Your task to perform on an android device: stop showing notifications on the lock screen Image 0: 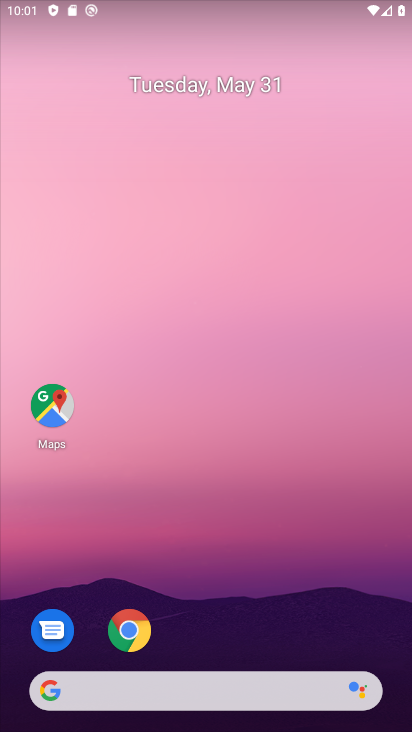
Step 0: drag from (303, 555) to (288, 18)
Your task to perform on an android device: stop showing notifications on the lock screen Image 1: 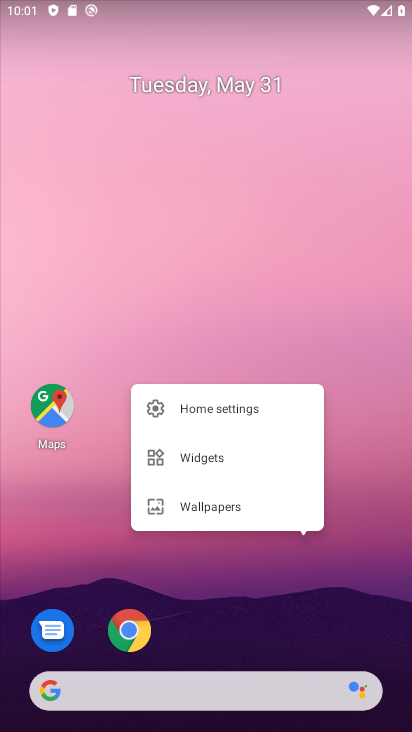
Step 1: press home button
Your task to perform on an android device: stop showing notifications on the lock screen Image 2: 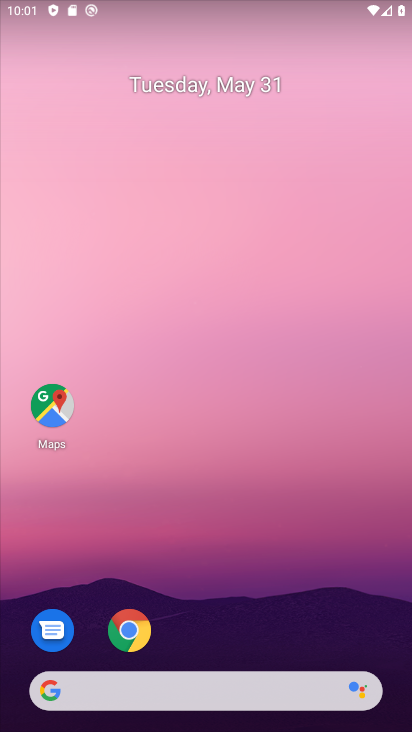
Step 2: drag from (340, 583) to (333, 79)
Your task to perform on an android device: stop showing notifications on the lock screen Image 3: 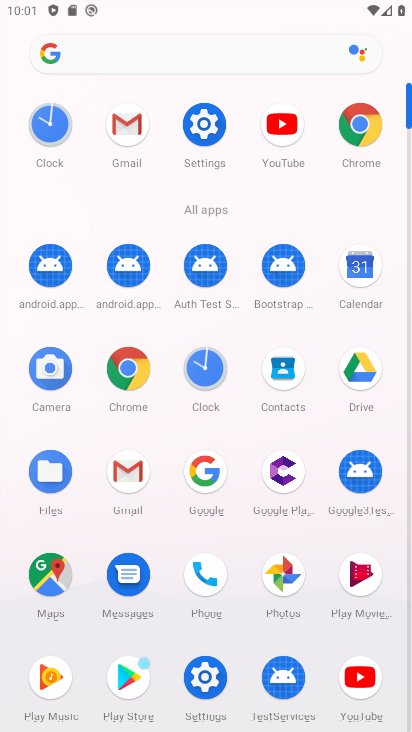
Step 3: click (202, 133)
Your task to perform on an android device: stop showing notifications on the lock screen Image 4: 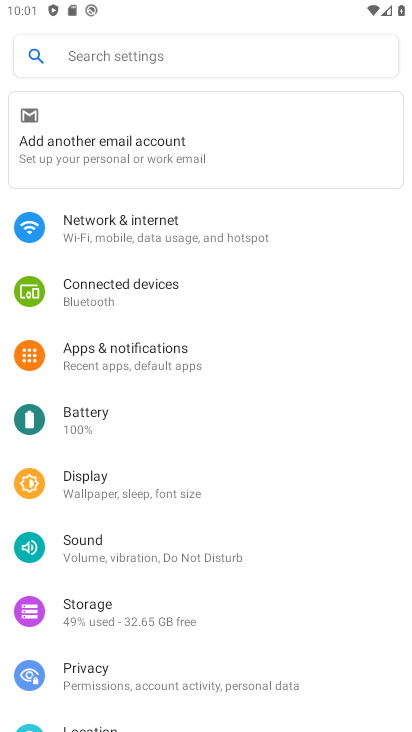
Step 4: click (158, 358)
Your task to perform on an android device: stop showing notifications on the lock screen Image 5: 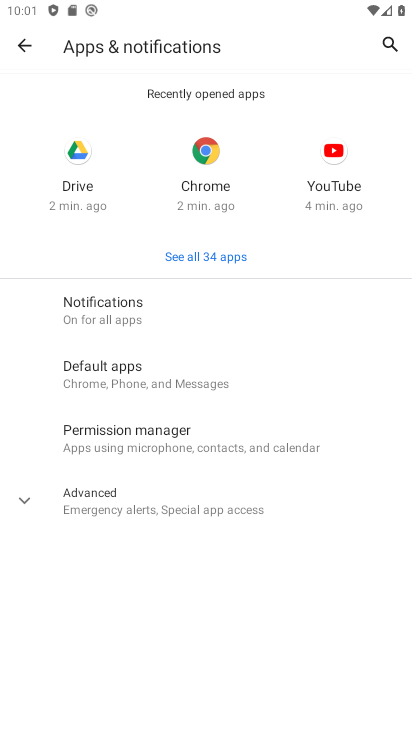
Step 5: click (146, 308)
Your task to perform on an android device: stop showing notifications on the lock screen Image 6: 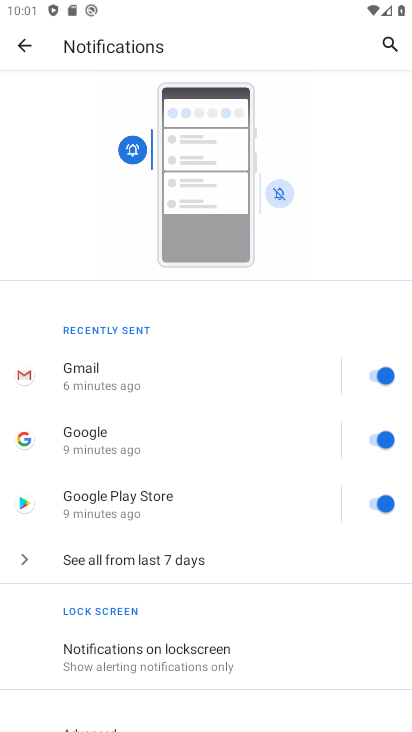
Step 6: click (161, 639)
Your task to perform on an android device: stop showing notifications on the lock screen Image 7: 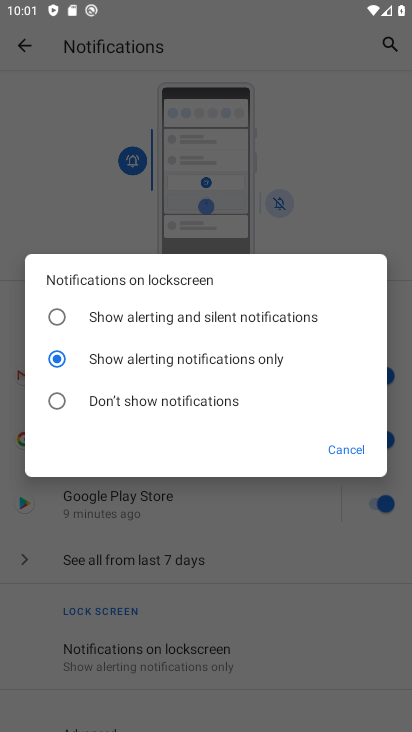
Step 7: click (57, 402)
Your task to perform on an android device: stop showing notifications on the lock screen Image 8: 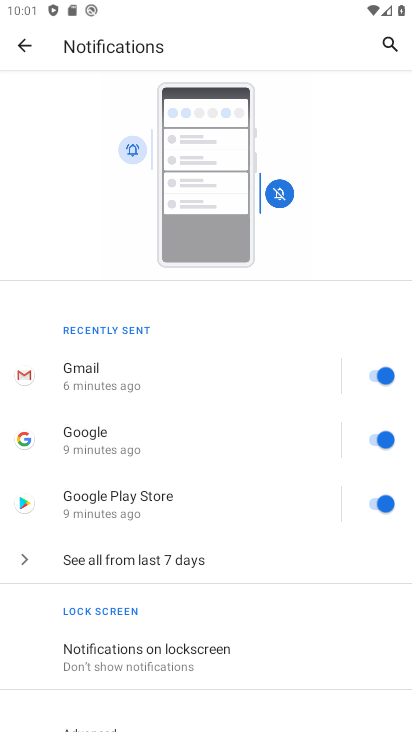
Step 8: task complete